Your task to perform on an android device: Open ESPN.com Image 0: 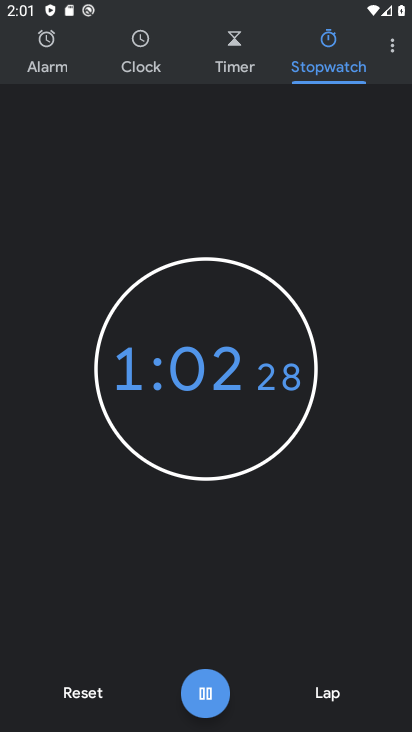
Step 0: press home button
Your task to perform on an android device: Open ESPN.com Image 1: 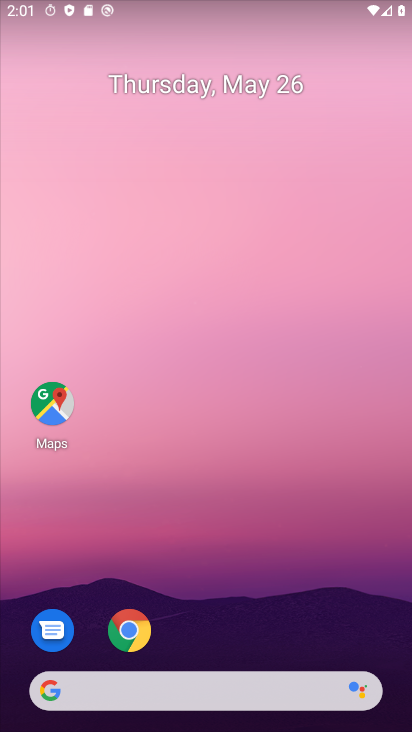
Step 1: click (115, 630)
Your task to perform on an android device: Open ESPN.com Image 2: 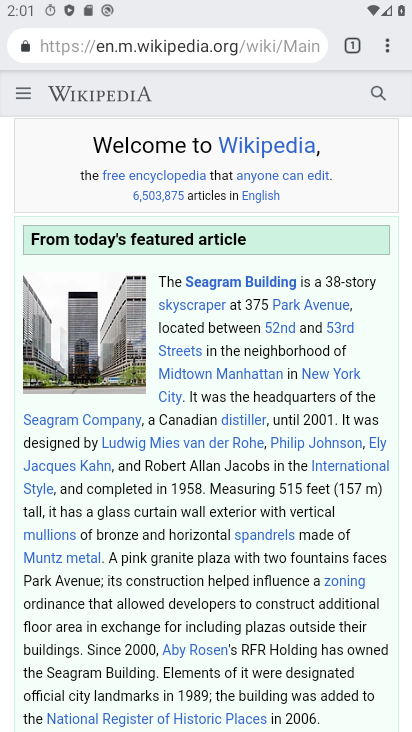
Step 2: click (349, 40)
Your task to perform on an android device: Open ESPN.com Image 3: 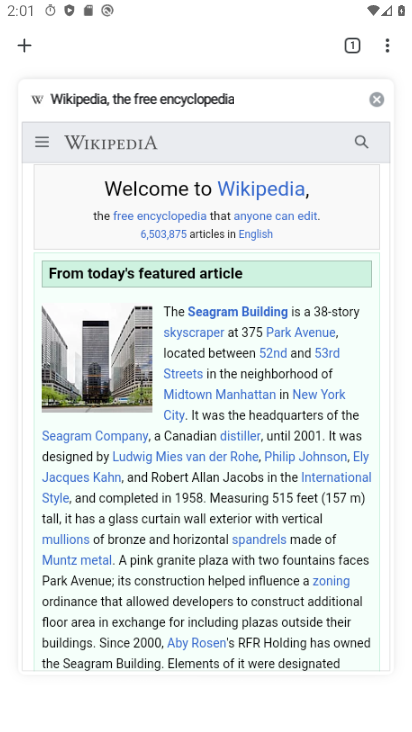
Step 3: click (31, 51)
Your task to perform on an android device: Open ESPN.com Image 4: 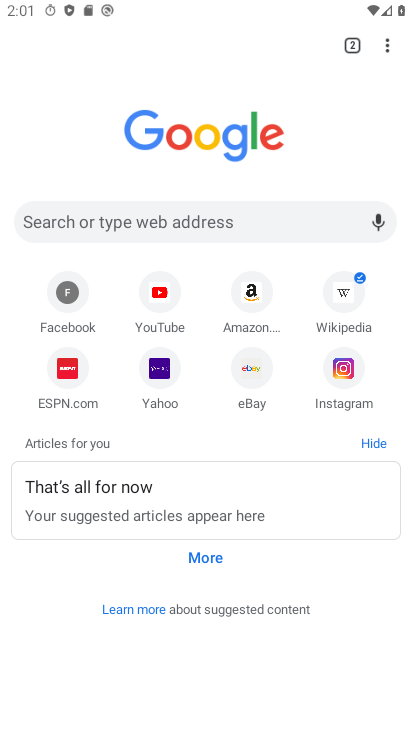
Step 4: click (68, 377)
Your task to perform on an android device: Open ESPN.com Image 5: 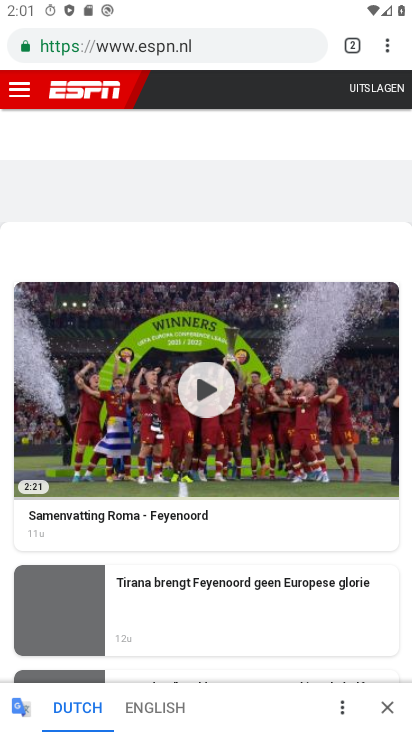
Step 5: task complete